Your task to perform on an android device: Check the news Image 0: 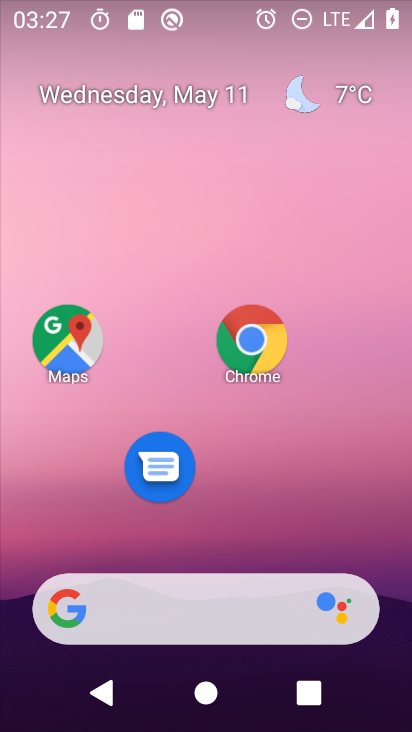
Step 0: click (80, 613)
Your task to perform on an android device: Check the news Image 1: 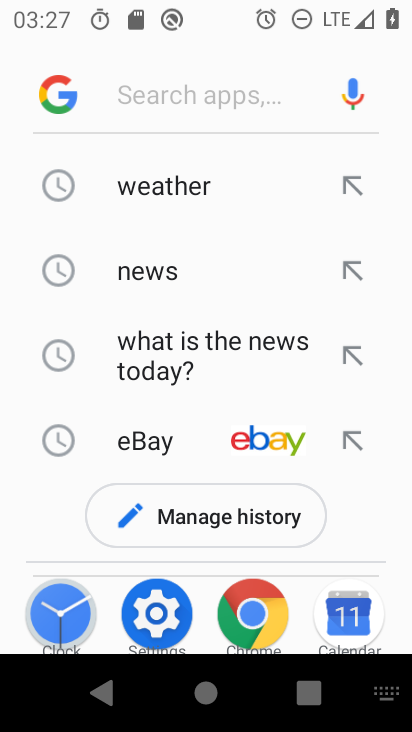
Step 1: click (154, 269)
Your task to perform on an android device: Check the news Image 2: 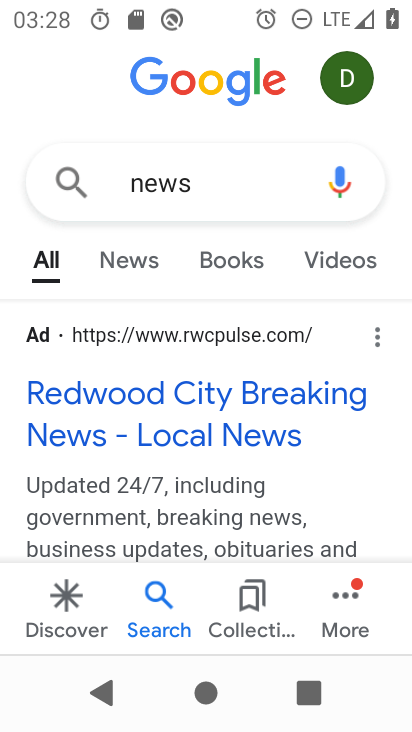
Step 2: click (128, 258)
Your task to perform on an android device: Check the news Image 3: 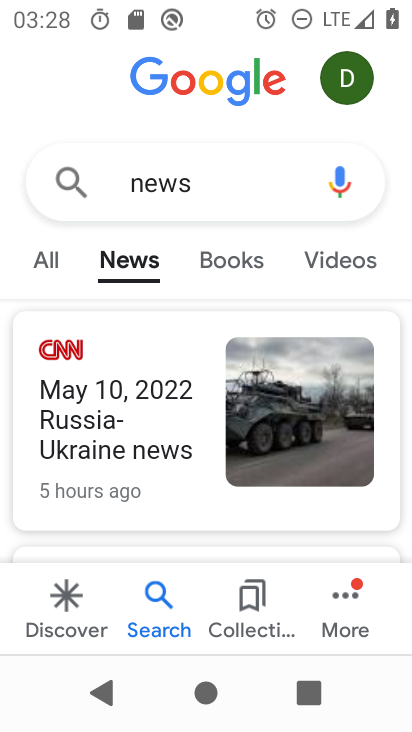
Step 3: task complete